Your task to perform on an android device: turn vacation reply on in the gmail app Image 0: 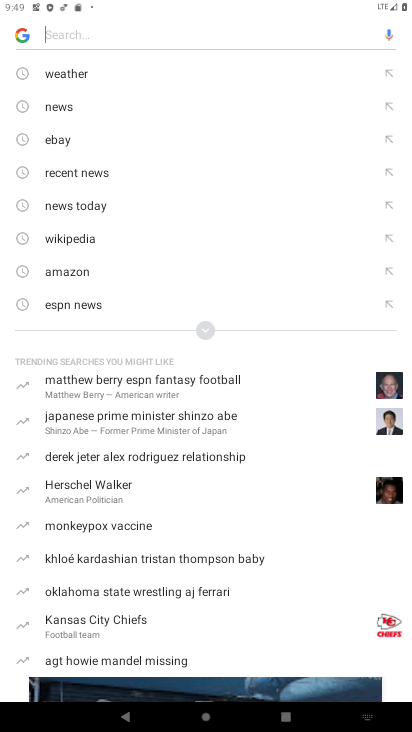
Step 0: press home button
Your task to perform on an android device: turn vacation reply on in the gmail app Image 1: 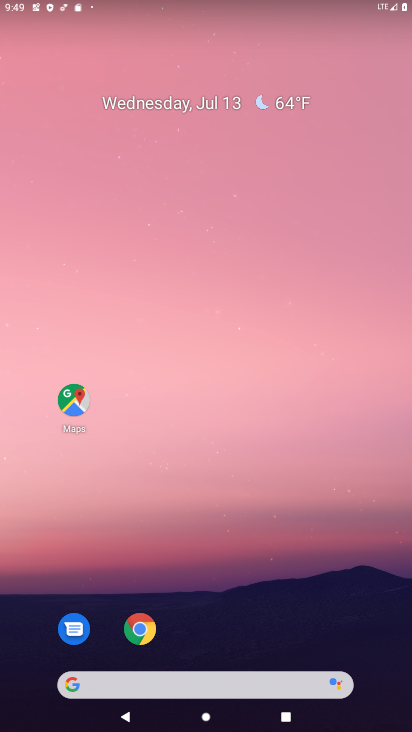
Step 1: drag from (233, 577) to (225, 121)
Your task to perform on an android device: turn vacation reply on in the gmail app Image 2: 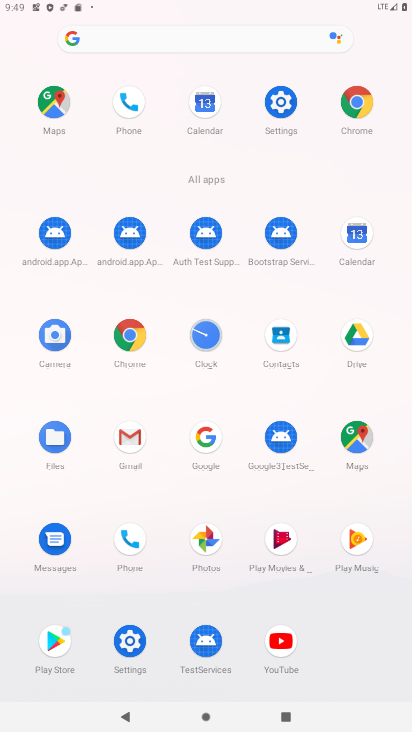
Step 2: click (132, 433)
Your task to perform on an android device: turn vacation reply on in the gmail app Image 3: 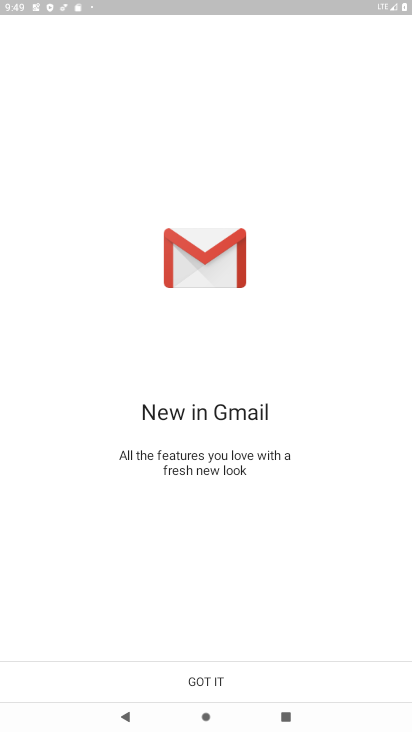
Step 3: click (223, 687)
Your task to perform on an android device: turn vacation reply on in the gmail app Image 4: 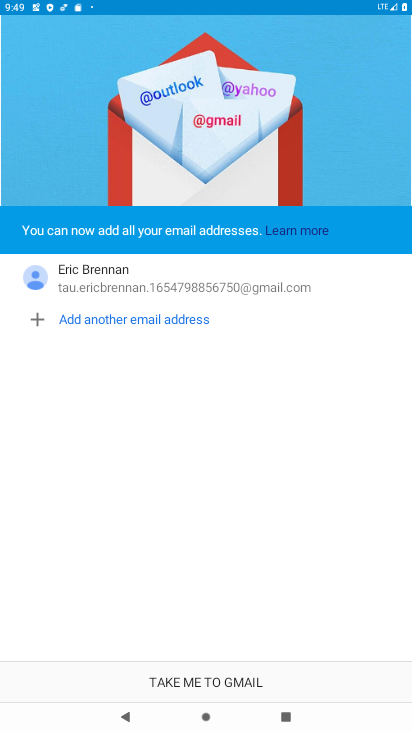
Step 4: click (218, 681)
Your task to perform on an android device: turn vacation reply on in the gmail app Image 5: 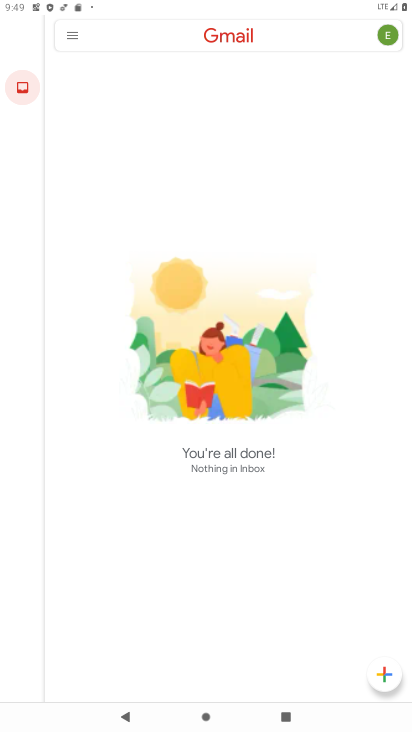
Step 5: click (72, 34)
Your task to perform on an android device: turn vacation reply on in the gmail app Image 6: 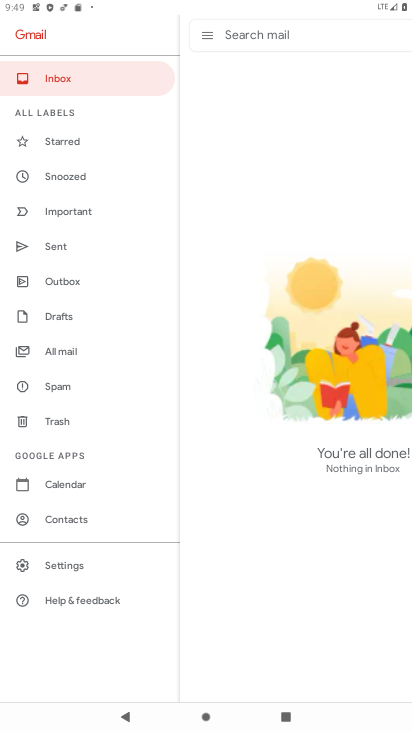
Step 6: click (71, 552)
Your task to perform on an android device: turn vacation reply on in the gmail app Image 7: 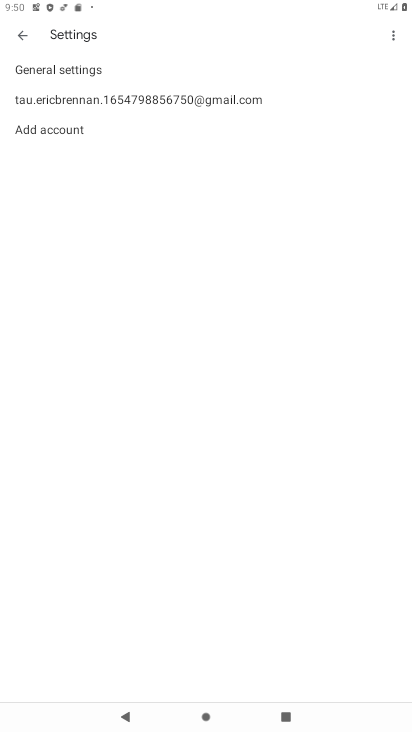
Step 7: click (95, 64)
Your task to perform on an android device: turn vacation reply on in the gmail app Image 8: 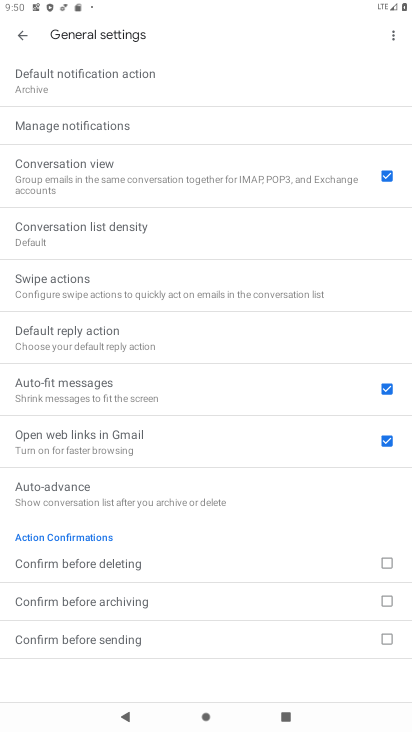
Step 8: click (74, 71)
Your task to perform on an android device: turn vacation reply on in the gmail app Image 9: 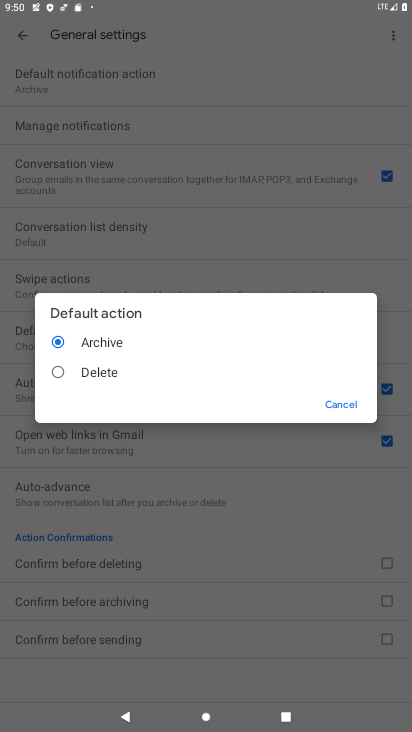
Step 9: click (148, 193)
Your task to perform on an android device: turn vacation reply on in the gmail app Image 10: 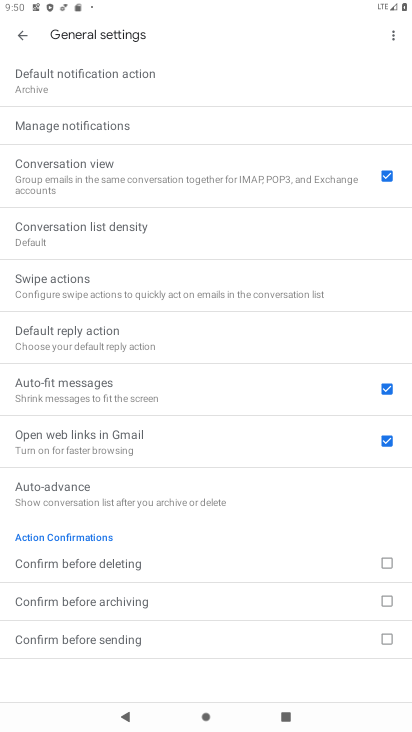
Step 10: drag from (119, 550) to (191, 182)
Your task to perform on an android device: turn vacation reply on in the gmail app Image 11: 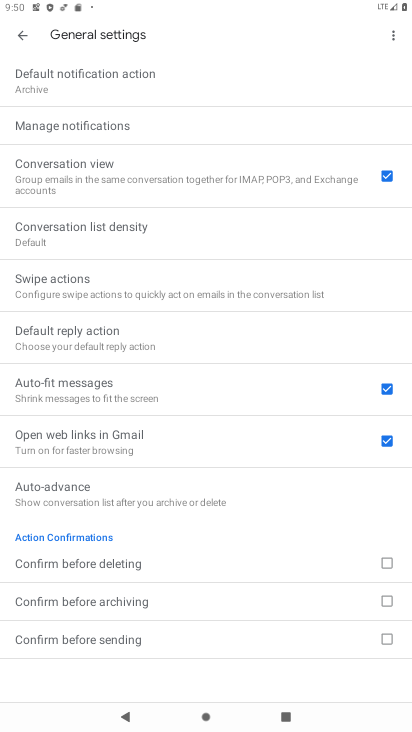
Step 11: click (12, 33)
Your task to perform on an android device: turn vacation reply on in the gmail app Image 12: 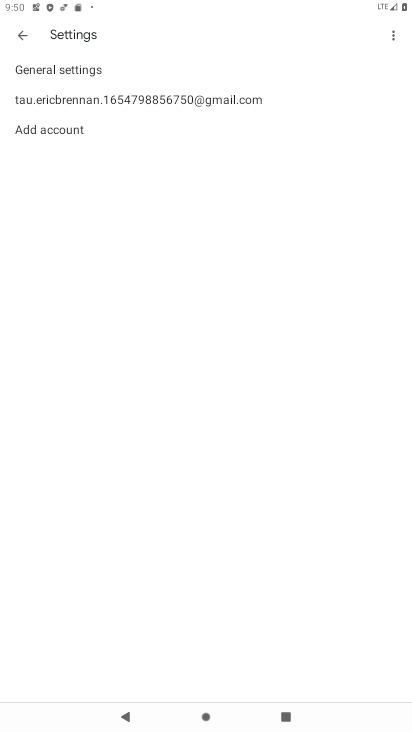
Step 12: click (45, 99)
Your task to perform on an android device: turn vacation reply on in the gmail app Image 13: 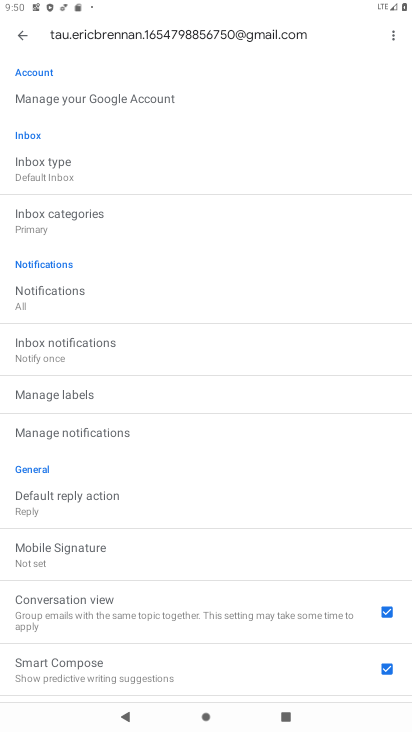
Step 13: drag from (149, 533) to (220, 241)
Your task to perform on an android device: turn vacation reply on in the gmail app Image 14: 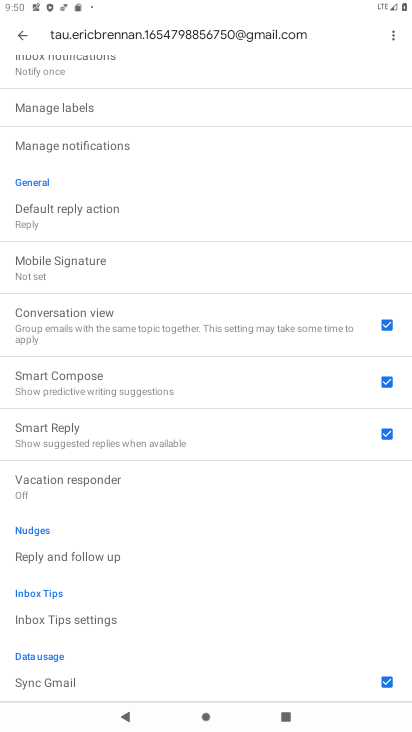
Step 14: click (111, 477)
Your task to perform on an android device: turn vacation reply on in the gmail app Image 15: 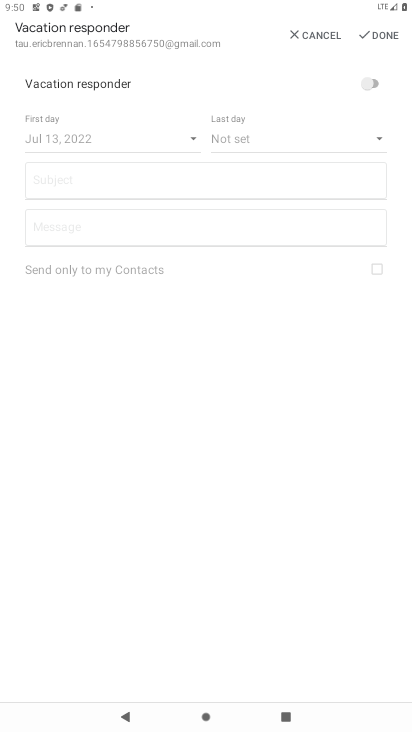
Step 15: click (379, 83)
Your task to perform on an android device: turn vacation reply on in the gmail app Image 16: 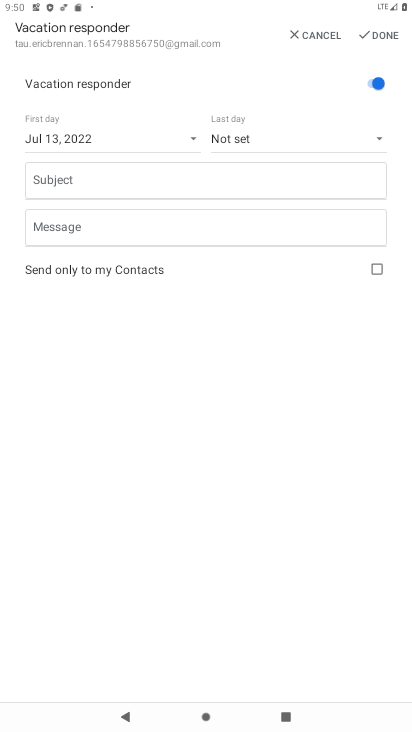
Step 16: task complete